Your task to perform on an android device: Search for Mexican restaurants on Maps Image 0: 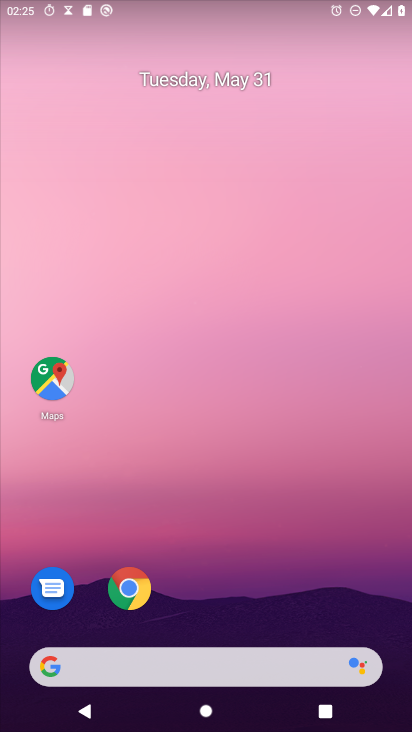
Step 0: drag from (165, 663) to (166, 133)
Your task to perform on an android device: Search for Mexican restaurants on Maps Image 1: 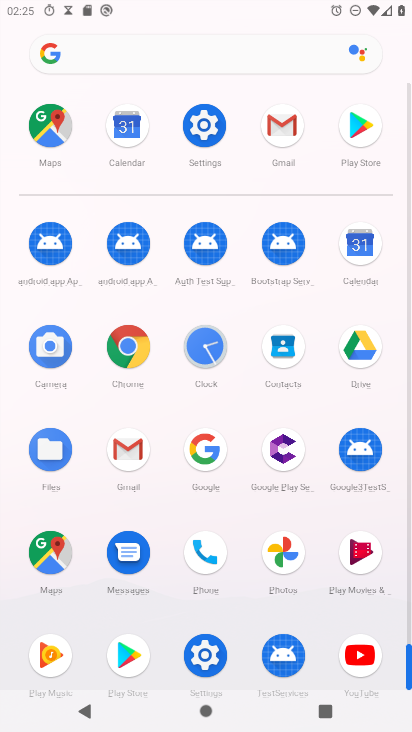
Step 1: click (58, 567)
Your task to perform on an android device: Search for Mexican restaurants on Maps Image 2: 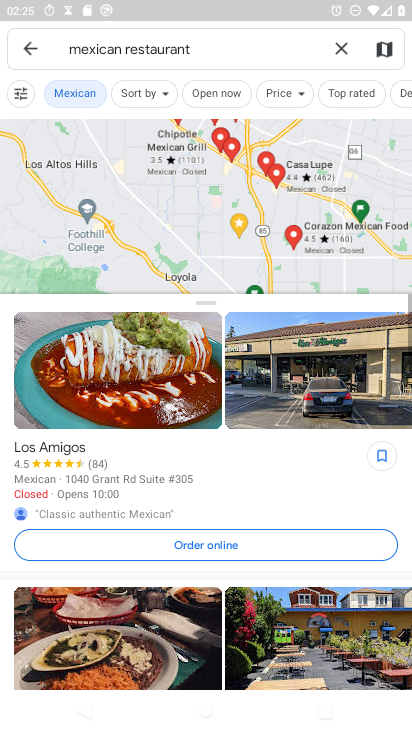
Step 2: task complete